Your task to perform on an android device: toggle javascript in the chrome app Image 0: 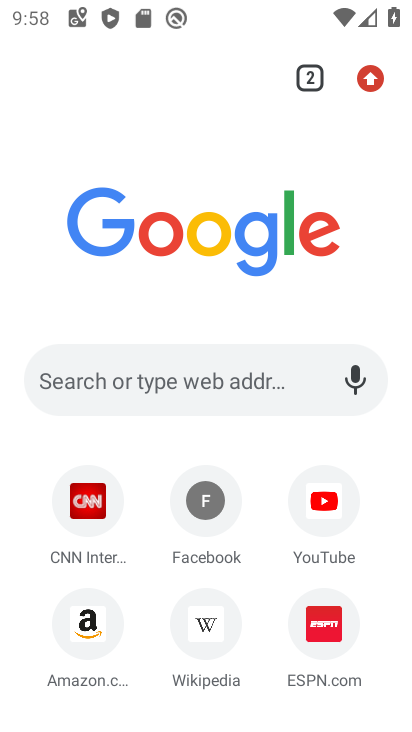
Step 0: click (372, 92)
Your task to perform on an android device: toggle javascript in the chrome app Image 1: 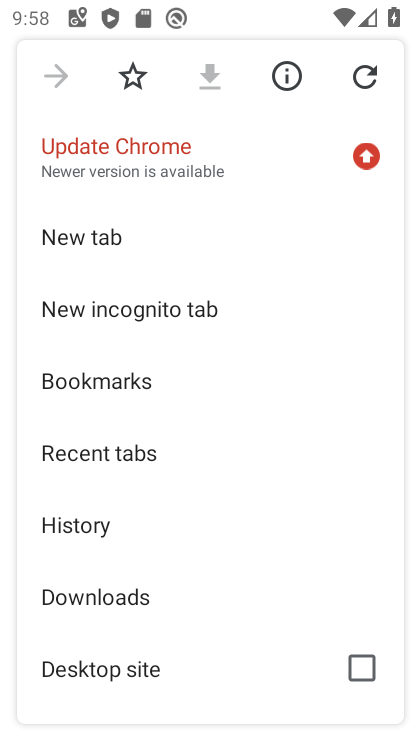
Step 1: drag from (214, 459) to (248, 199)
Your task to perform on an android device: toggle javascript in the chrome app Image 2: 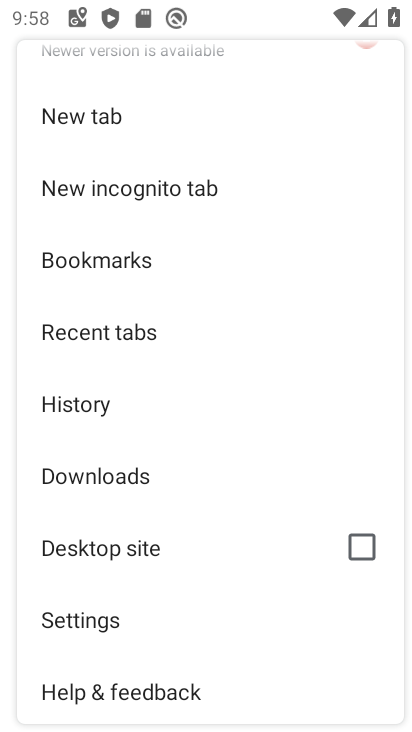
Step 2: click (90, 610)
Your task to perform on an android device: toggle javascript in the chrome app Image 3: 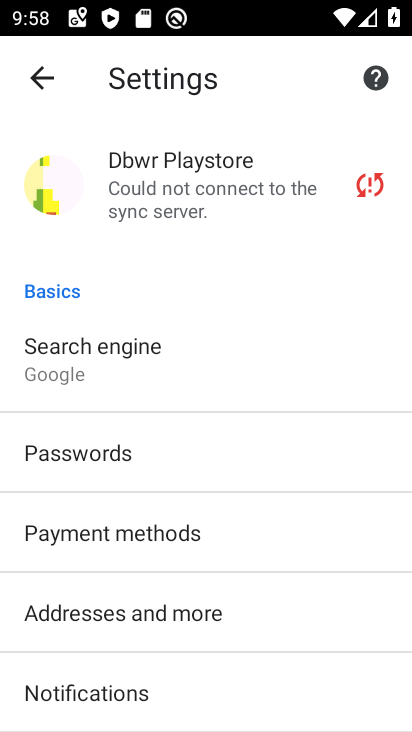
Step 3: drag from (98, 603) to (192, 273)
Your task to perform on an android device: toggle javascript in the chrome app Image 4: 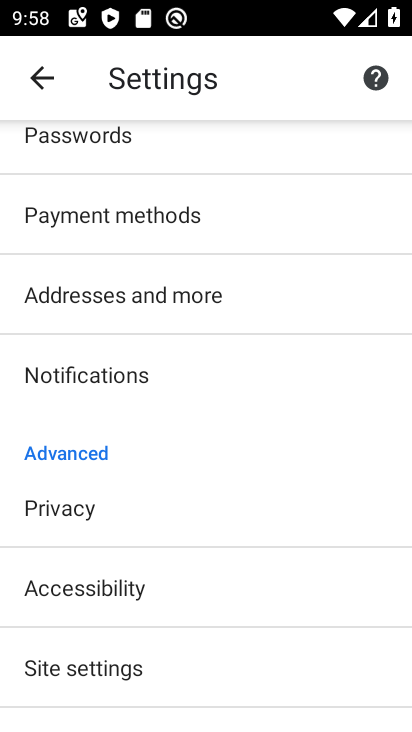
Step 4: drag from (148, 565) to (262, 353)
Your task to perform on an android device: toggle javascript in the chrome app Image 5: 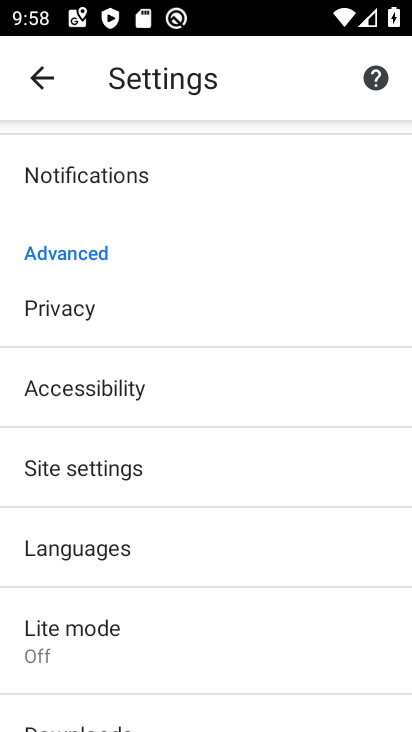
Step 5: click (111, 469)
Your task to perform on an android device: toggle javascript in the chrome app Image 6: 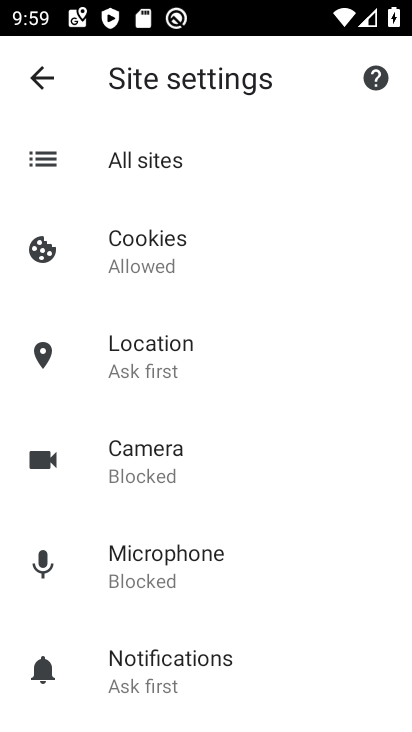
Step 6: drag from (149, 612) to (148, 418)
Your task to perform on an android device: toggle javascript in the chrome app Image 7: 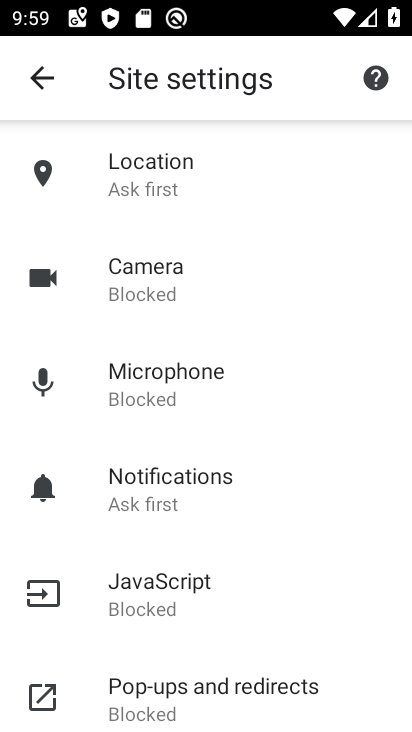
Step 7: click (137, 571)
Your task to perform on an android device: toggle javascript in the chrome app Image 8: 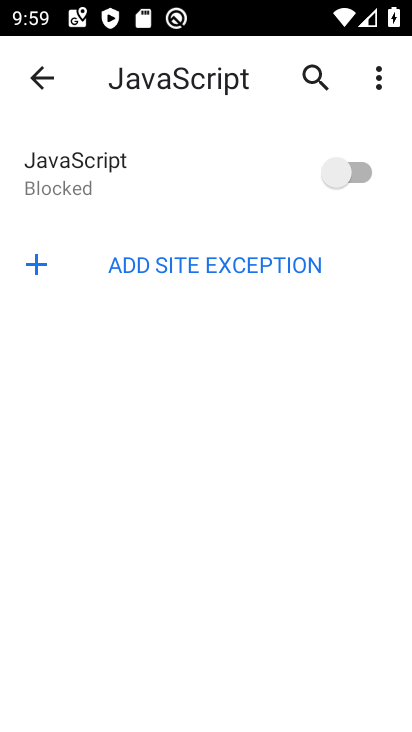
Step 8: click (295, 180)
Your task to perform on an android device: toggle javascript in the chrome app Image 9: 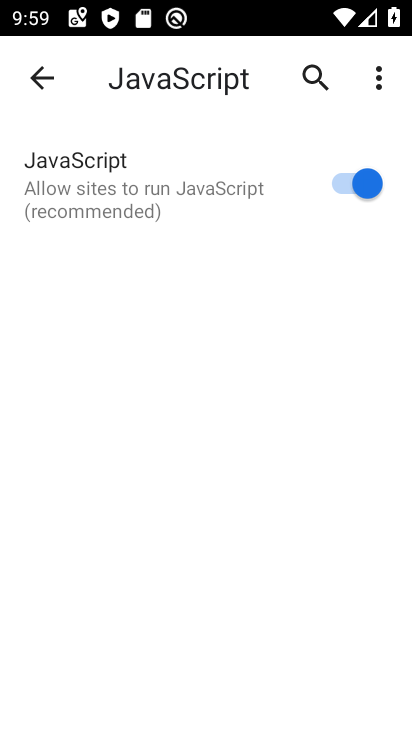
Step 9: task complete